Your task to perform on an android device: Open the web browser Image 0: 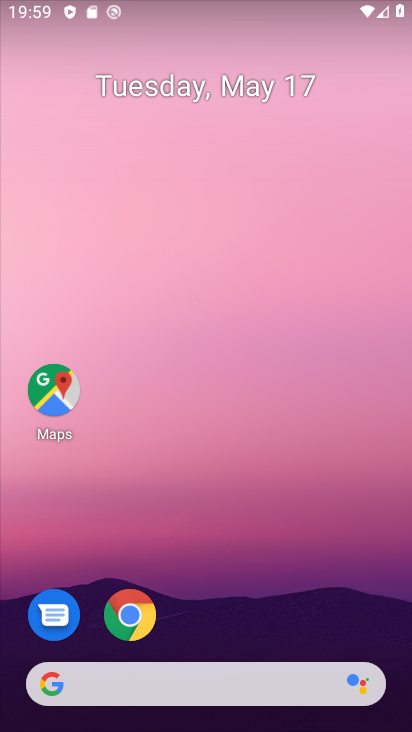
Step 0: click (128, 611)
Your task to perform on an android device: Open the web browser Image 1: 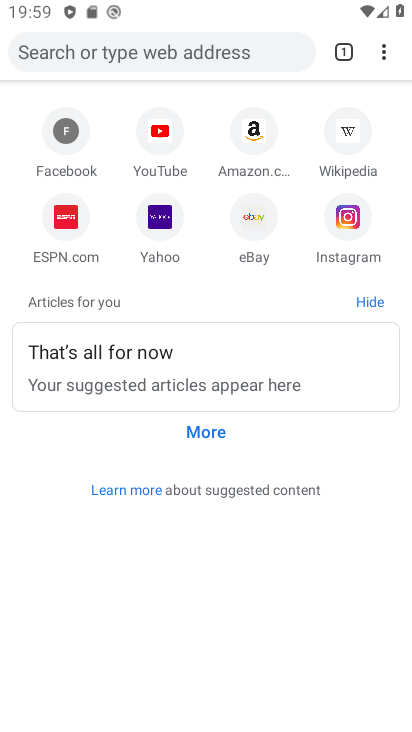
Step 1: task complete